Your task to perform on an android device: Go to Wikipedia Image 0: 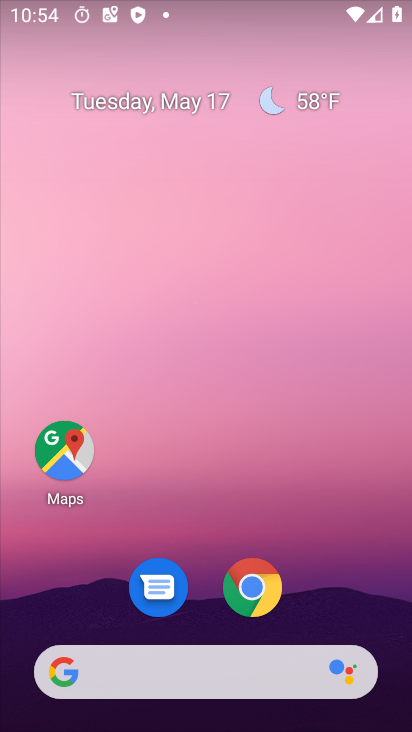
Step 0: drag from (332, 602) to (275, 185)
Your task to perform on an android device: Go to Wikipedia Image 1: 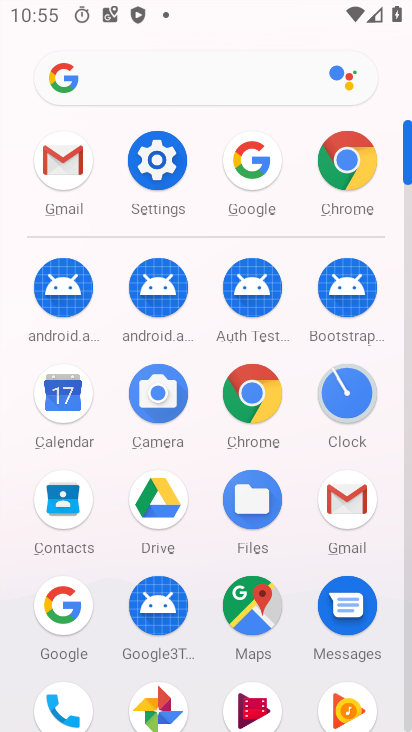
Step 1: click (58, 605)
Your task to perform on an android device: Go to Wikipedia Image 2: 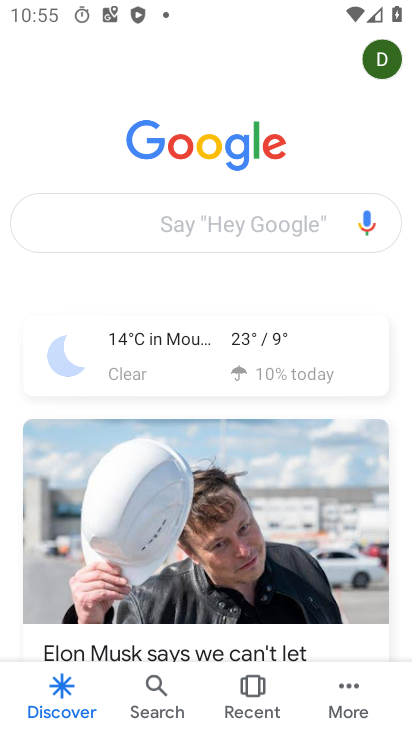
Step 2: click (133, 222)
Your task to perform on an android device: Go to Wikipedia Image 3: 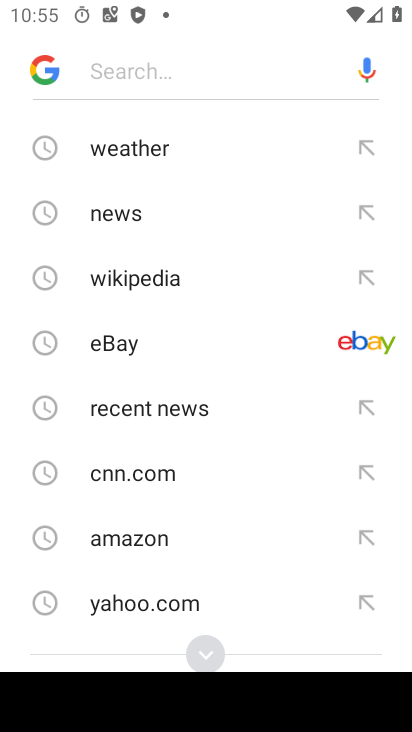
Step 3: click (163, 283)
Your task to perform on an android device: Go to Wikipedia Image 4: 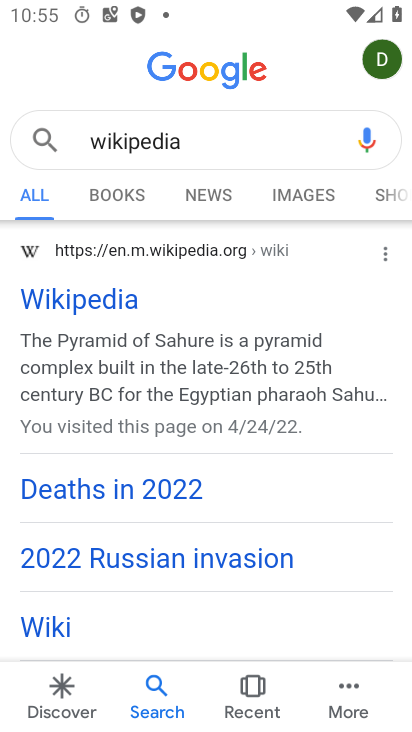
Step 4: click (94, 298)
Your task to perform on an android device: Go to Wikipedia Image 5: 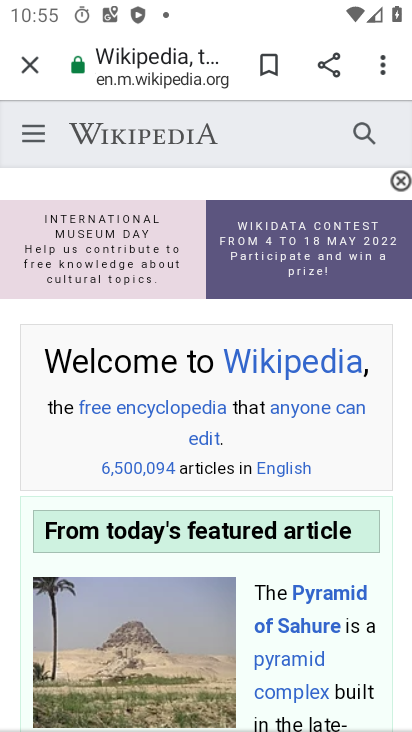
Step 5: task complete